Your task to perform on an android device: Go to sound settings Image 0: 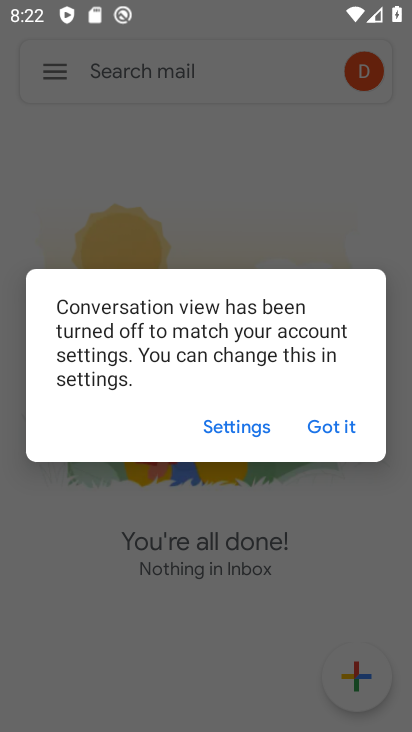
Step 0: press home button
Your task to perform on an android device: Go to sound settings Image 1: 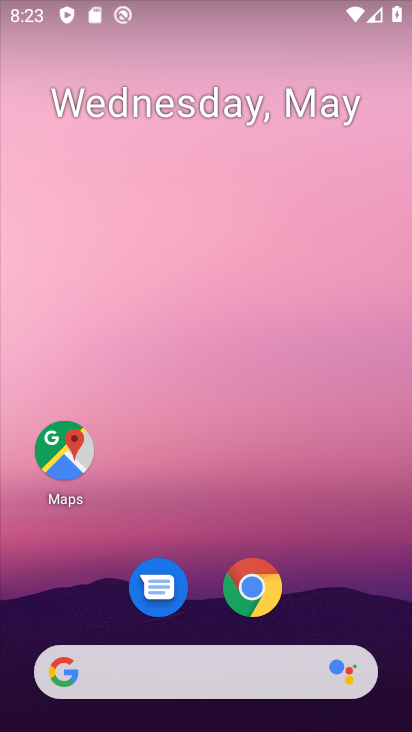
Step 1: drag from (205, 623) to (216, 192)
Your task to perform on an android device: Go to sound settings Image 2: 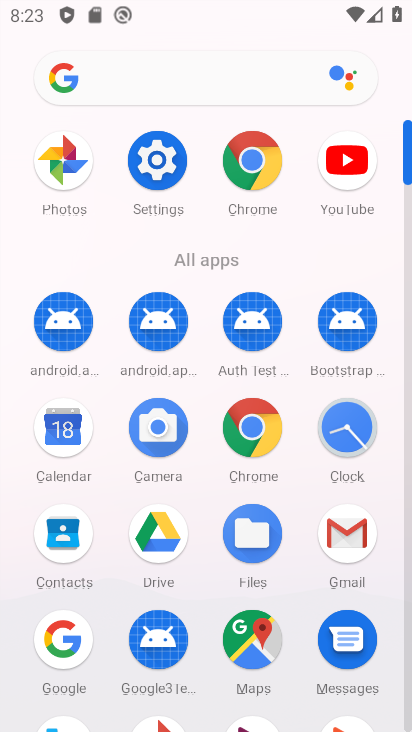
Step 2: click (158, 179)
Your task to perform on an android device: Go to sound settings Image 3: 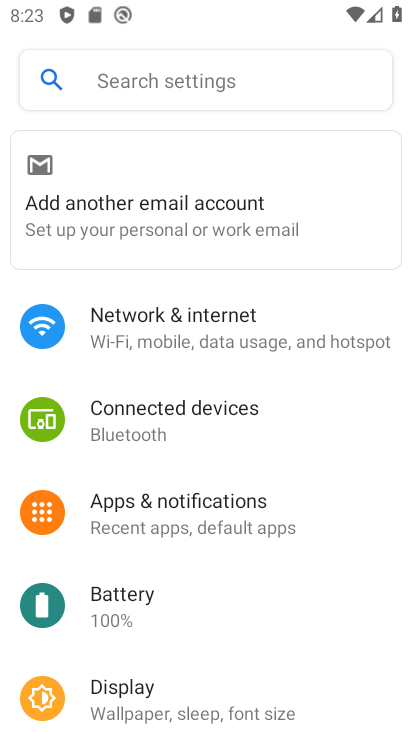
Step 3: drag from (208, 618) to (239, 430)
Your task to perform on an android device: Go to sound settings Image 4: 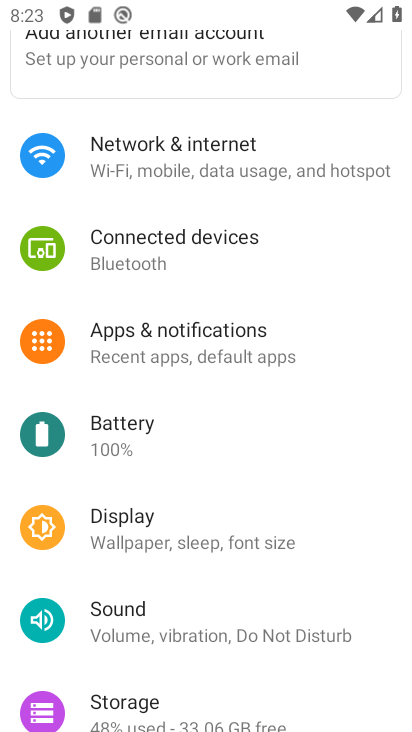
Step 4: click (151, 629)
Your task to perform on an android device: Go to sound settings Image 5: 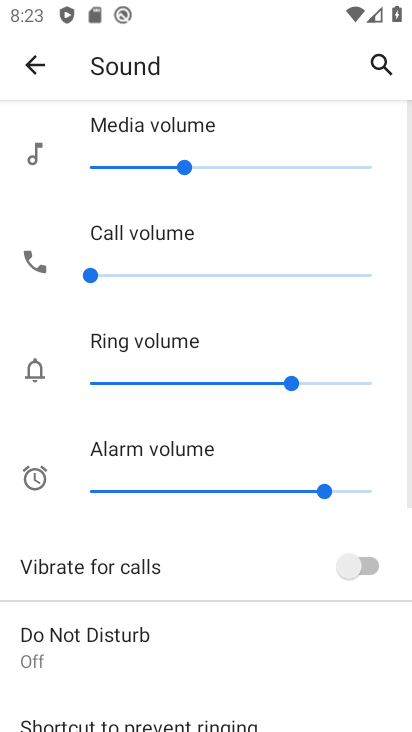
Step 5: task complete